Your task to perform on an android device: Show me the alarms in the clock app Image 0: 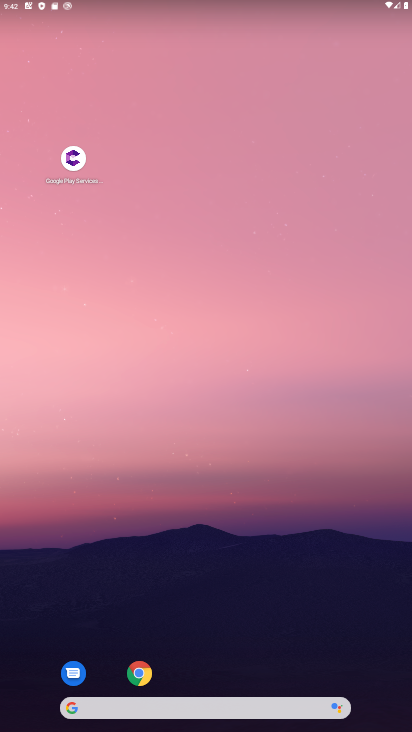
Step 0: drag from (220, 672) to (177, 77)
Your task to perform on an android device: Show me the alarms in the clock app Image 1: 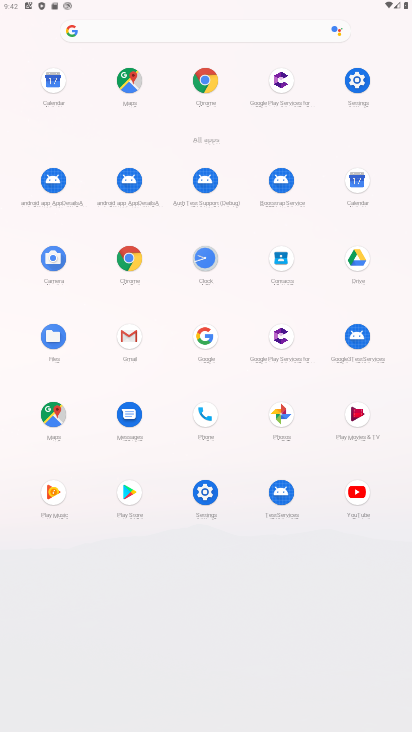
Step 1: click (206, 260)
Your task to perform on an android device: Show me the alarms in the clock app Image 2: 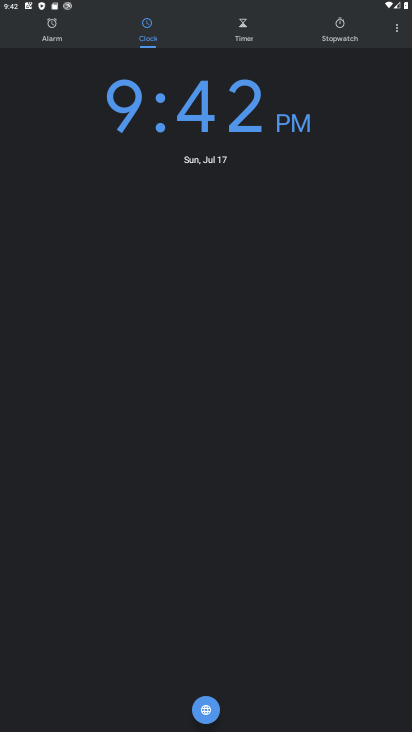
Step 2: click (55, 28)
Your task to perform on an android device: Show me the alarms in the clock app Image 3: 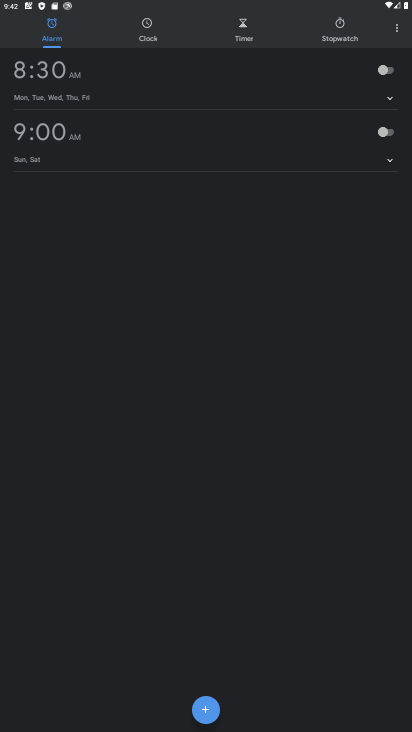
Step 3: task complete